Your task to perform on an android device: toggle javascript in the chrome app Image 0: 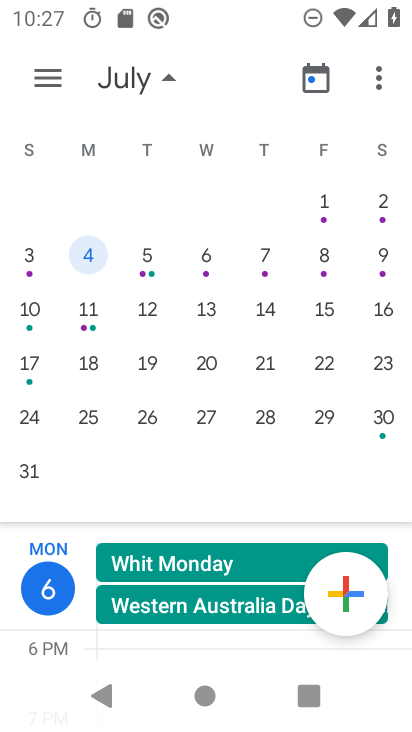
Step 0: press home button
Your task to perform on an android device: toggle javascript in the chrome app Image 1: 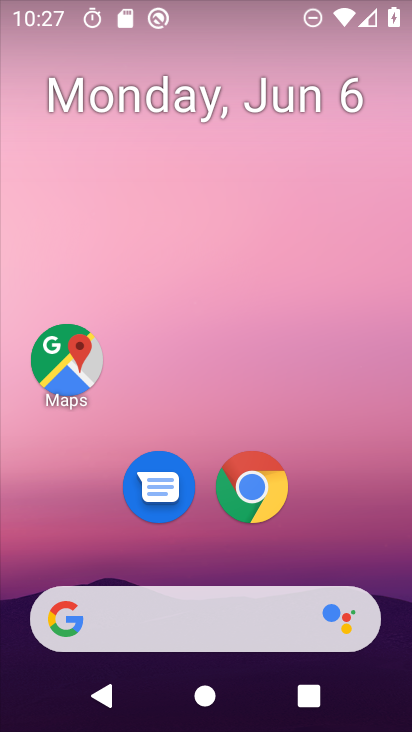
Step 1: drag from (387, 610) to (221, 1)
Your task to perform on an android device: toggle javascript in the chrome app Image 2: 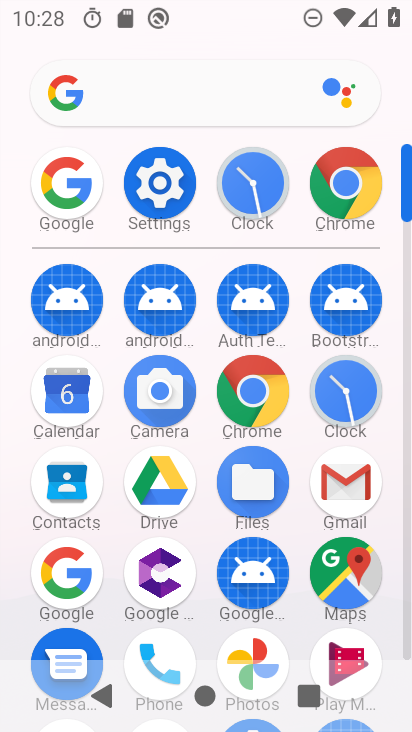
Step 2: click (322, 215)
Your task to perform on an android device: toggle javascript in the chrome app Image 3: 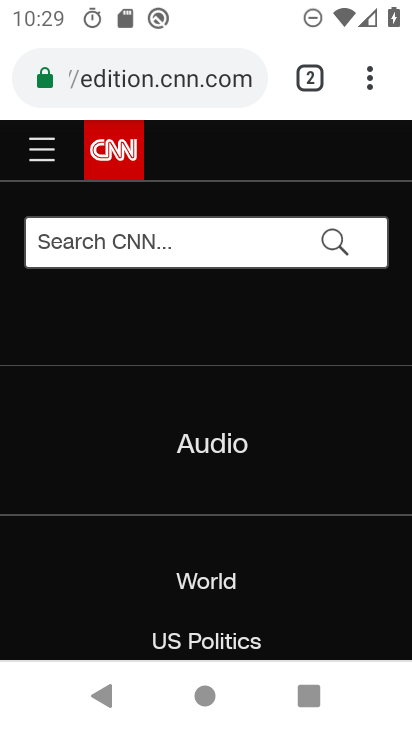
Step 3: press back button
Your task to perform on an android device: toggle javascript in the chrome app Image 4: 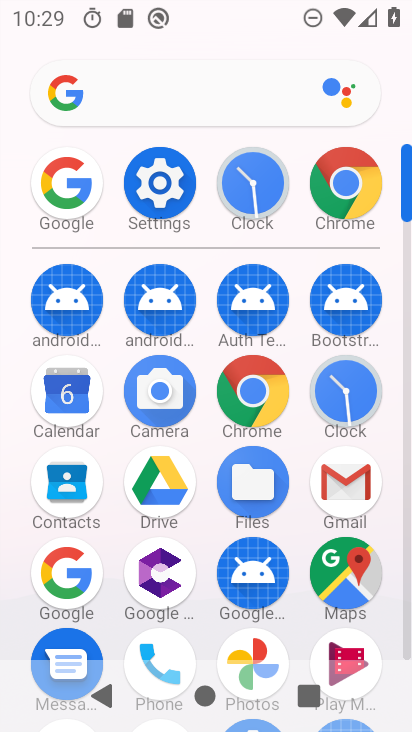
Step 4: click (327, 182)
Your task to perform on an android device: toggle javascript in the chrome app Image 5: 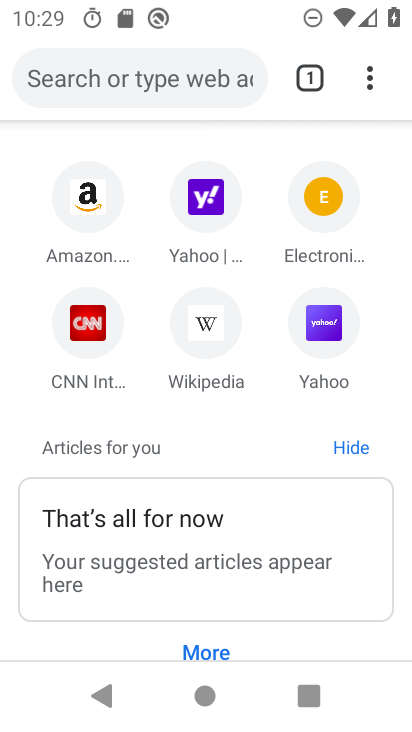
Step 5: click (374, 72)
Your task to perform on an android device: toggle javascript in the chrome app Image 6: 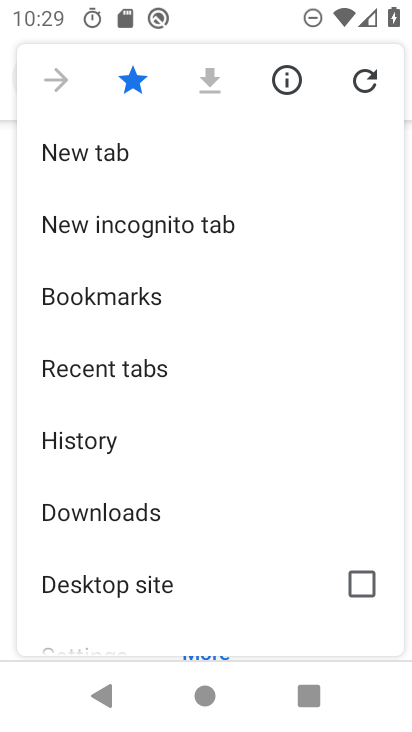
Step 6: drag from (174, 603) to (242, 104)
Your task to perform on an android device: toggle javascript in the chrome app Image 7: 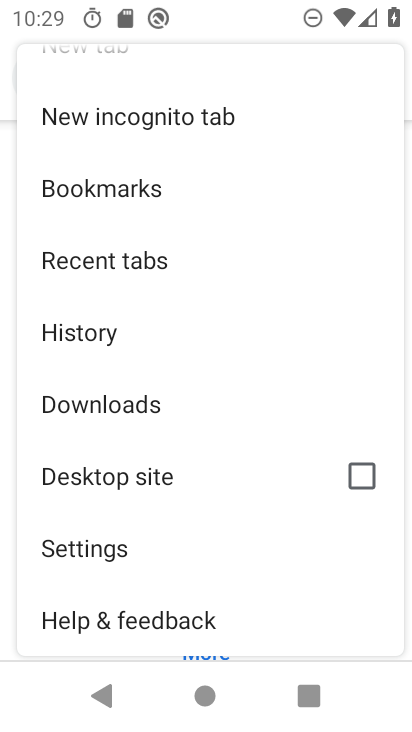
Step 7: click (145, 552)
Your task to perform on an android device: toggle javascript in the chrome app Image 8: 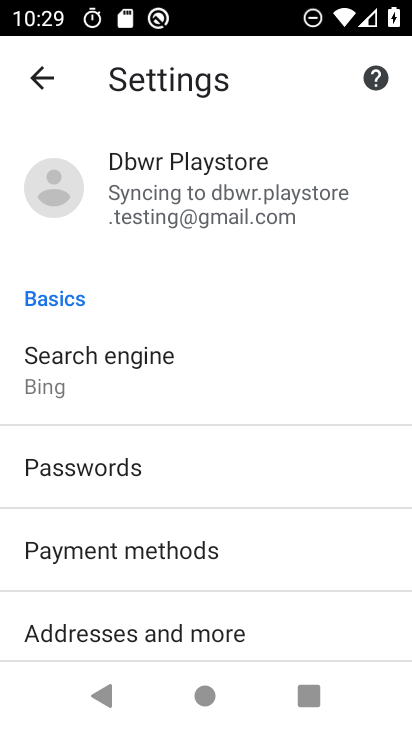
Step 8: drag from (198, 612) to (227, 149)
Your task to perform on an android device: toggle javascript in the chrome app Image 9: 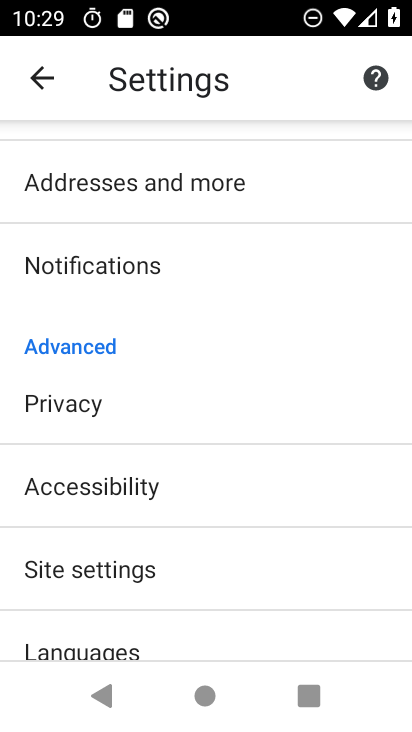
Step 9: click (169, 572)
Your task to perform on an android device: toggle javascript in the chrome app Image 10: 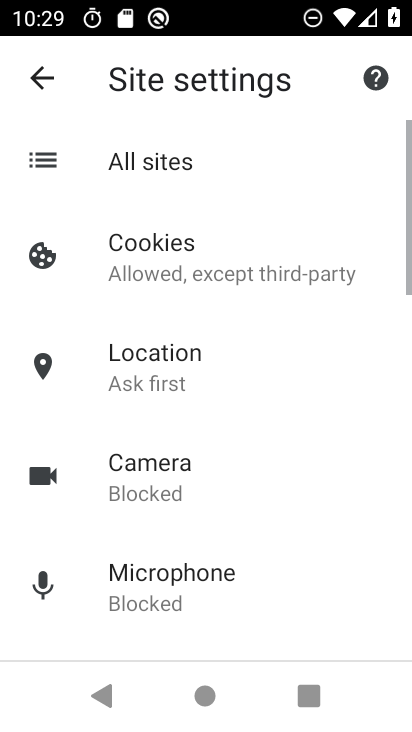
Step 10: drag from (169, 572) to (241, 182)
Your task to perform on an android device: toggle javascript in the chrome app Image 11: 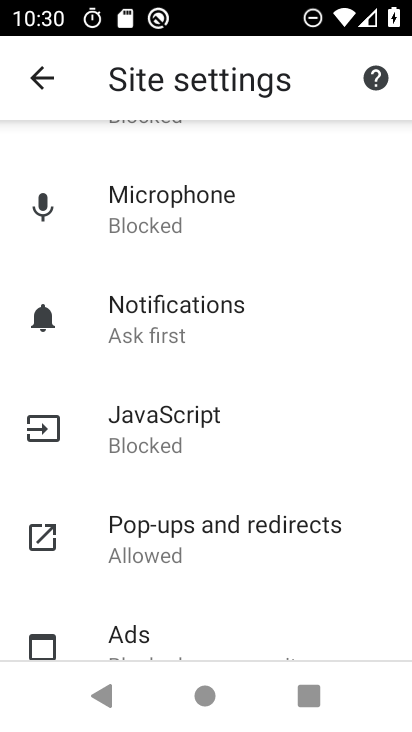
Step 11: click (173, 440)
Your task to perform on an android device: toggle javascript in the chrome app Image 12: 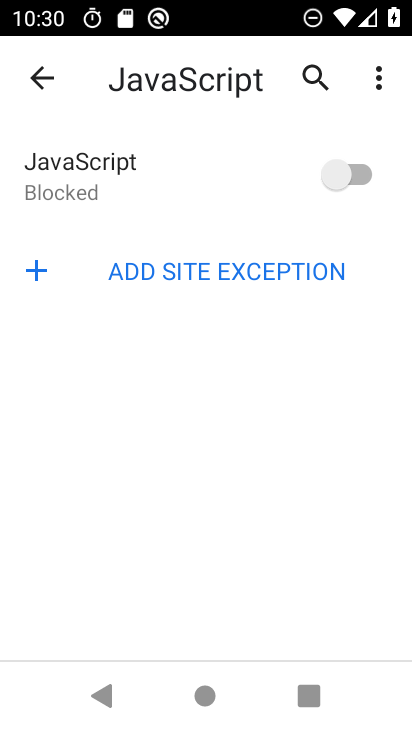
Step 12: click (354, 178)
Your task to perform on an android device: toggle javascript in the chrome app Image 13: 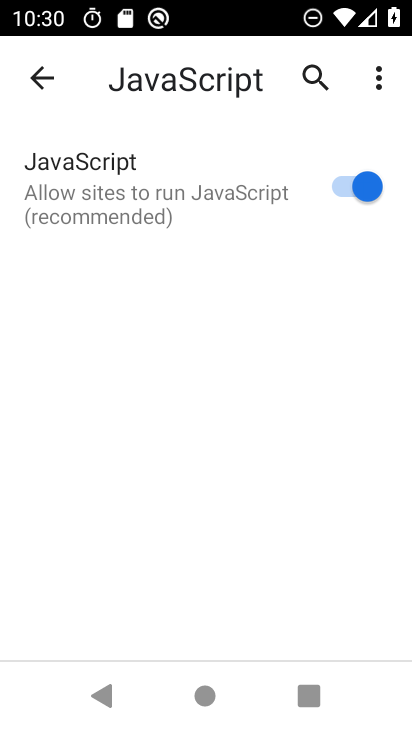
Step 13: task complete